Your task to perform on an android device: What's the weather going to be this weekend? Image 0: 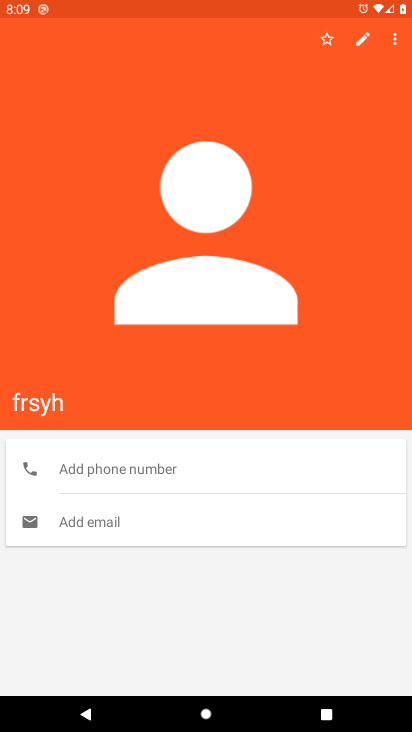
Step 0: press home button
Your task to perform on an android device: What's the weather going to be this weekend? Image 1: 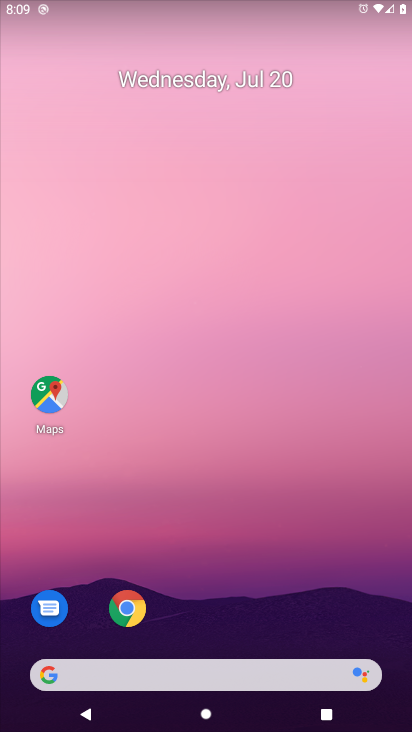
Step 1: click (154, 675)
Your task to perform on an android device: What's the weather going to be this weekend? Image 2: 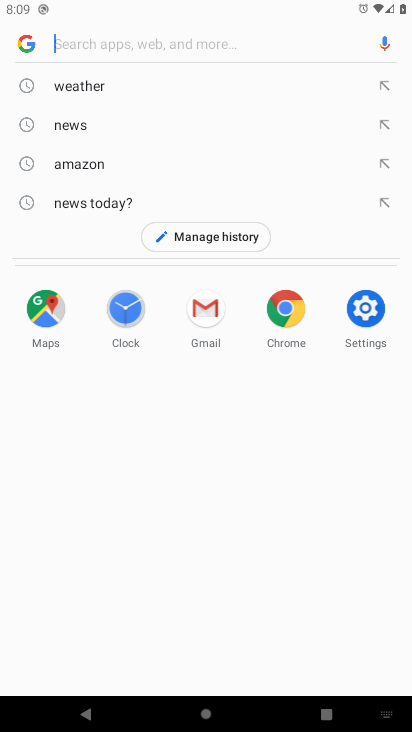
Step 2: click (95, 74)
Your task to perform on an android device: What's the weather going to be this weekend? Image 3: 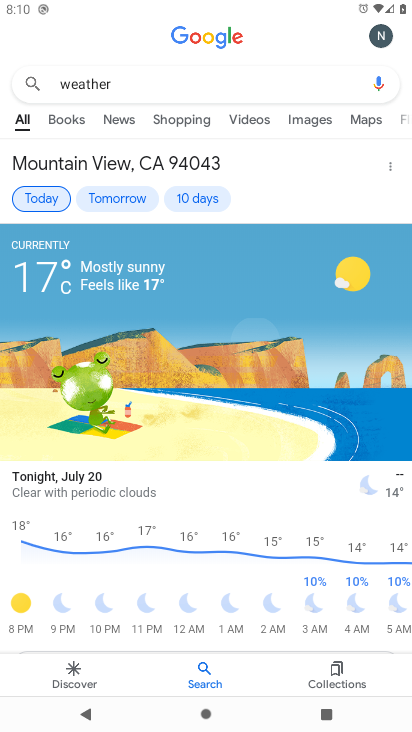
Step 3: click (210, 192)
Your task to perform on an android device: What's the weather going to be this weekend? Image 4: 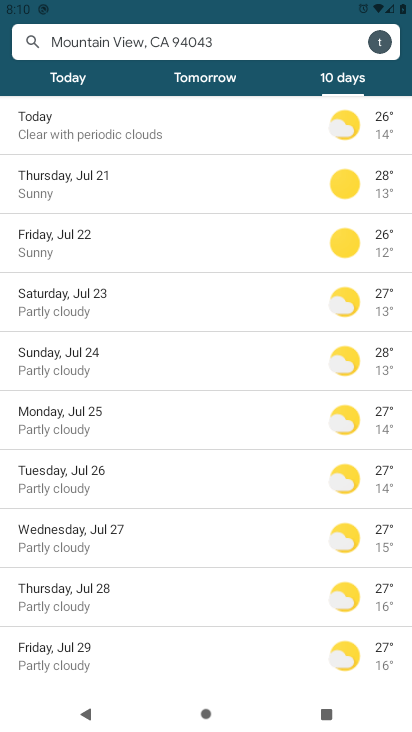
Step 4: task complete